Your task to perform on an android device: Open settings Image 0: 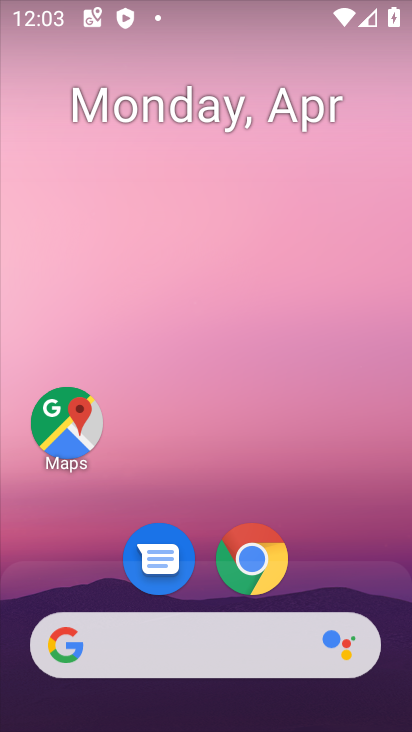
Step 0: drag from (262, 495) to (265, 187)
Your task to perform on an android device: Open settings Image 1: 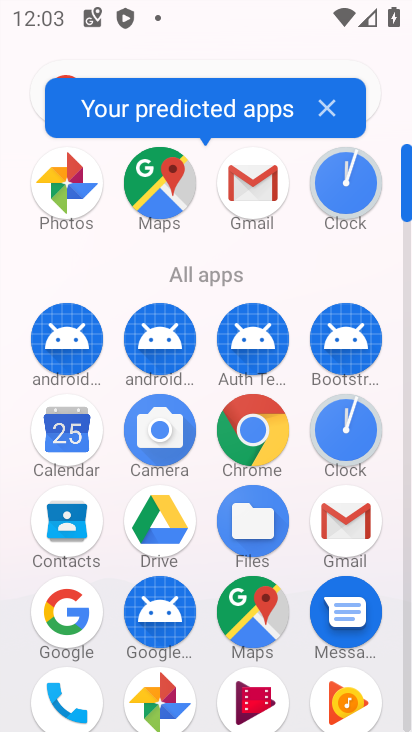
Step 1: drag from (213, 275) to (195, 29)
Your task to perform on an android device: Open settings Image 2: 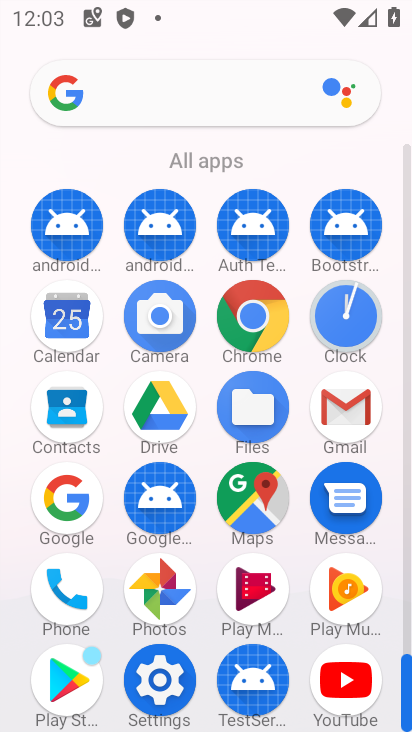
Step 2: click (183, 665)
Your task to perform on an android device: Open settings Image 3: 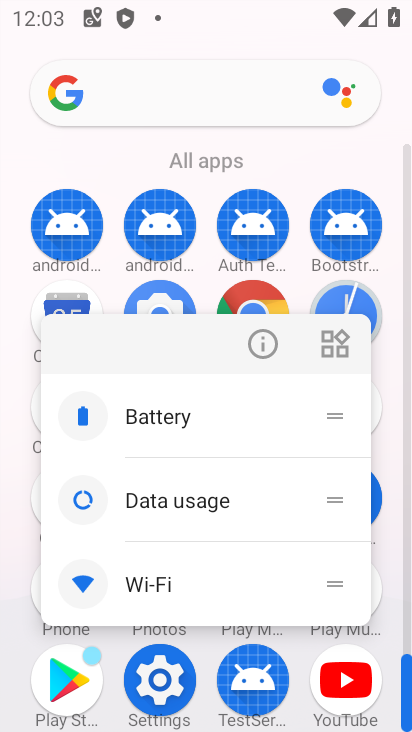
Step 3: click (264, 346)
Your task to perform on an android device: Open settings Image 4: 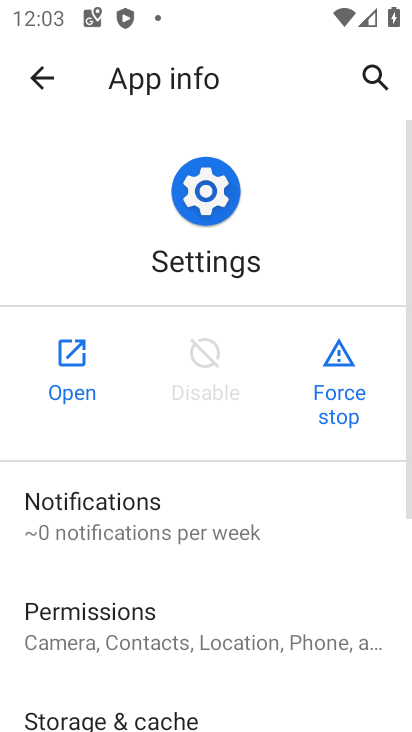
Step 4: click (79, 399)
Your task to perform on an android device: Open settings Image 5: 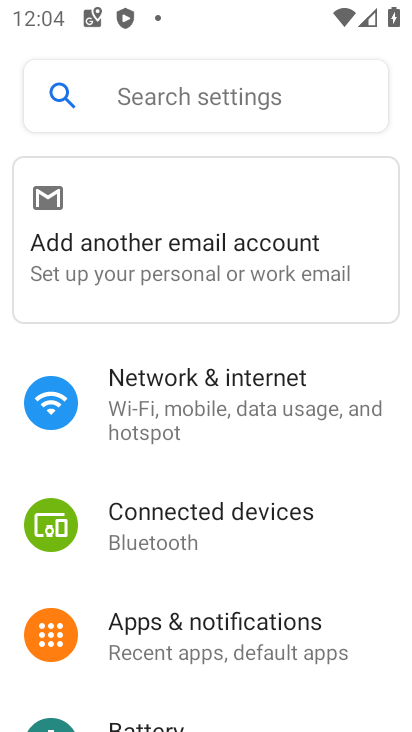
Step 5: task complete